Your task to perform on an android device: Search for Mexican restaurants on Maps Image 0: 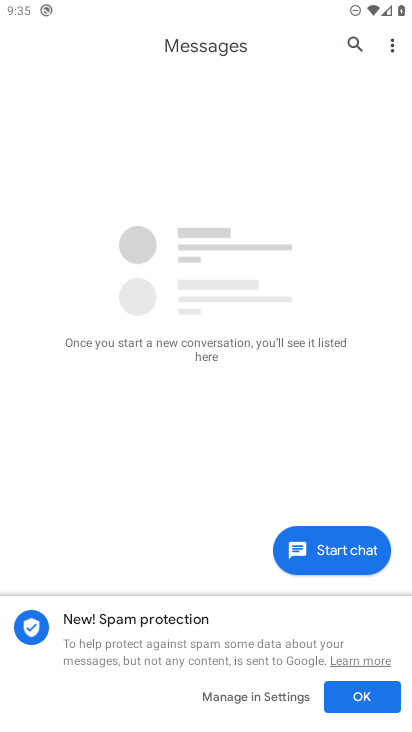
Step 0: press home button
Your task to perform on an android device: Search for Mexican restaurants on Maps Image 1: 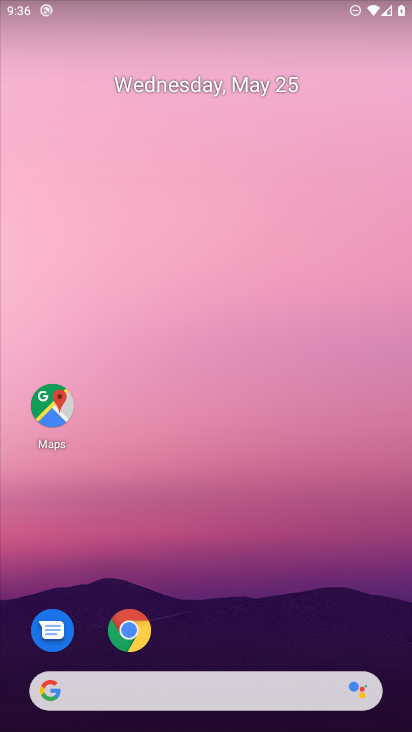
Step 1: click (42, 408)
Your task to perform on an android device: Search for Mexican restaurants on Maps Image 2: 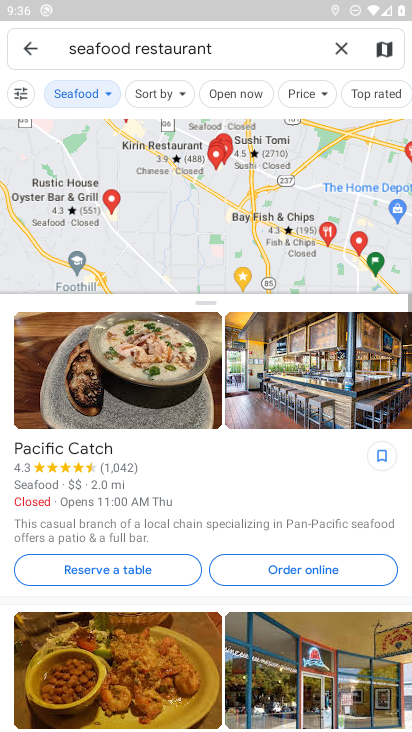
Step 2: click (343, 51)
Your task to perform on an android device: Search for Mexican restaurants on Maps Image 3: 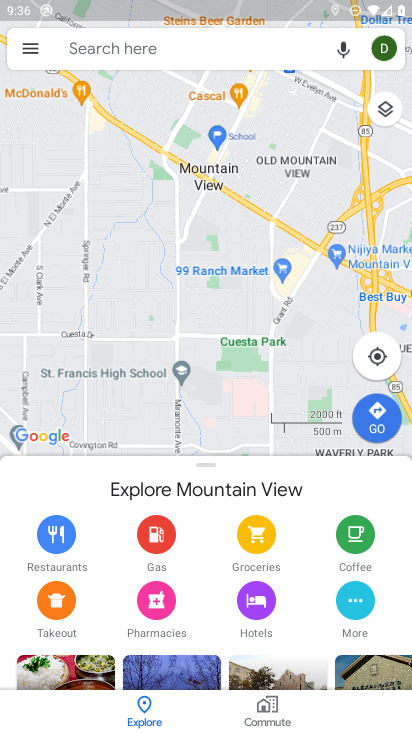
Step 3: click (209, 62)
Your task to perform on an android device: Search for Mexican restaurants on Maps Image 4: 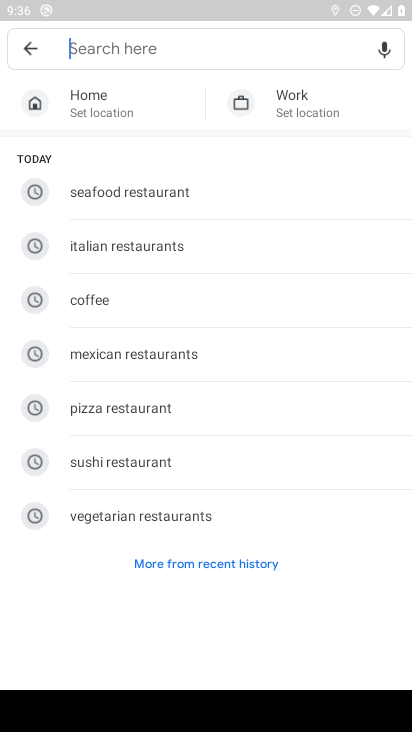
Step 4: click (168, 354)
Your task to perform on an android device: Search for Mexican restaurants on Maps Image 5: 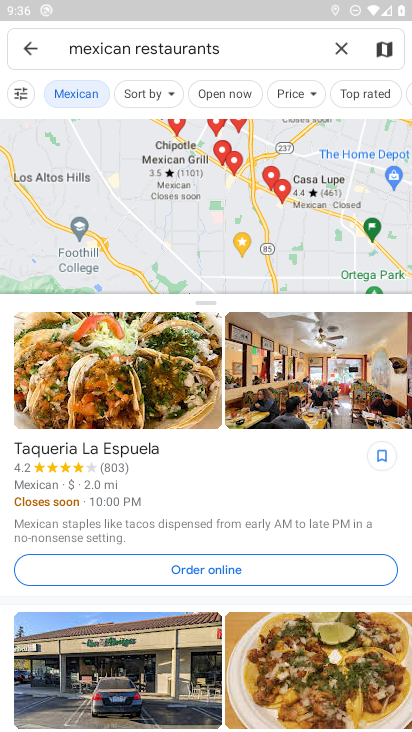
Step 5: task complete